Your task to perform on an android device: snooze an email in the gmail app Image 0: 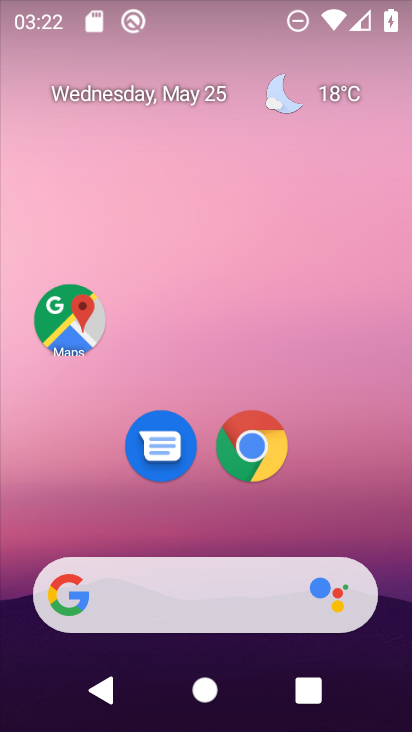
Step 0: drag from (208, 560) to (253, 134)
Your task to perform on an android device: snooze an email in the gmail app Image 1: 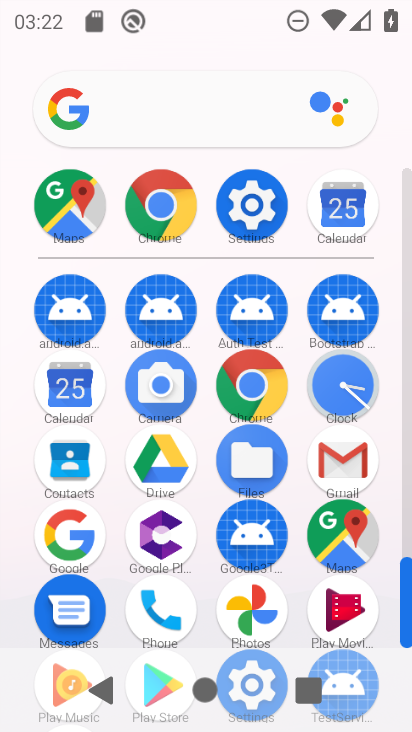
Step 1: click (327, 450)
Your task to perform on an android device: snooze an email in the gmail app Image 2: 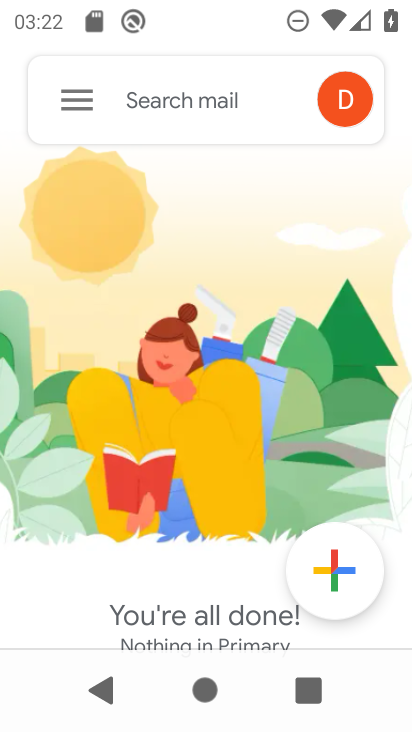
Step 2: click (70, 122)
Your task to perform on an android device: snooze an email in the gmail app Image 3: 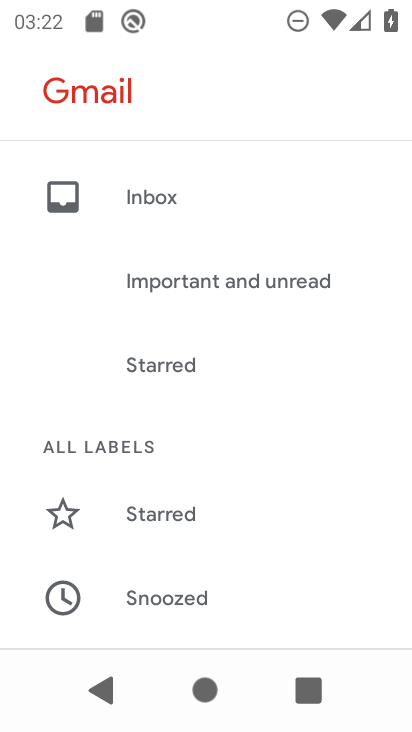
Step 3: drag from (162, 544) to (204, 64)
Your task to perform on an android device: snooze an email in the gmail app Image 4: 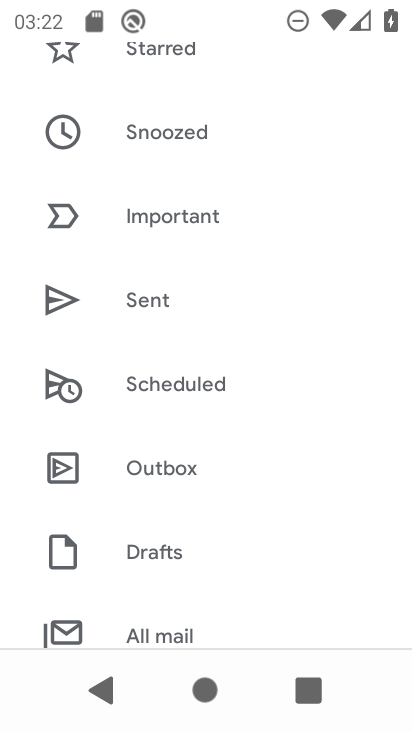
Step 4: click (169, 628)
Your task to perform on an android device: snooze an email in the gmail app Image 5: 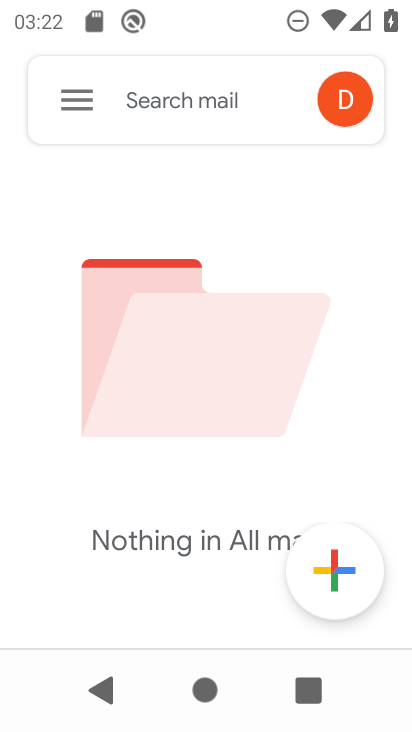
Step 5: task complete